Your task to perform on an android device: clear all cookies in the chrome app Image 0: 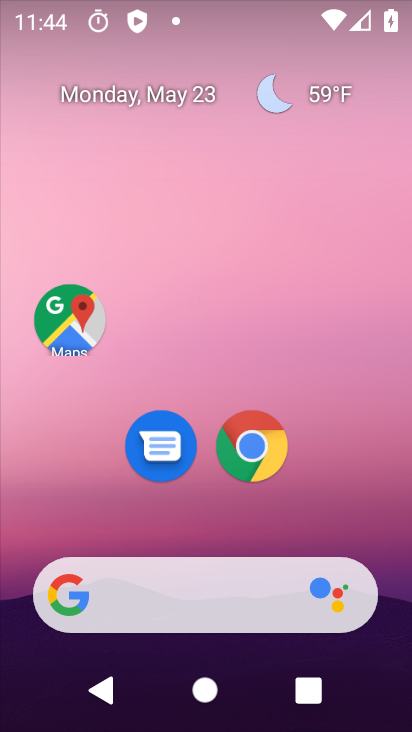
Step 0: click (248, 447)
Your task to perform on an android device: clear all cookies in the chrome app Image 1: 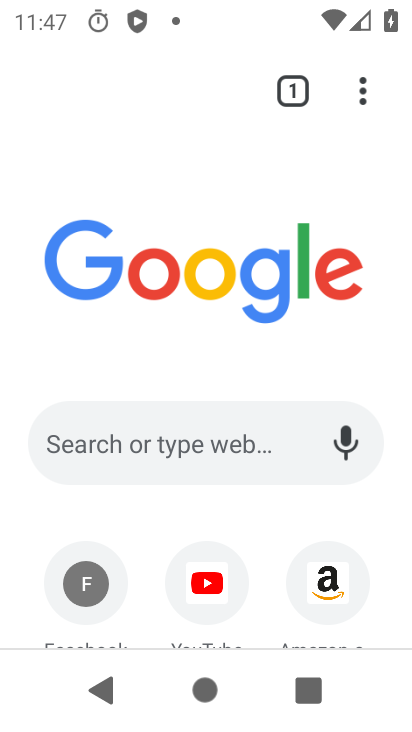
Step 1: click (363, 79)
Your task to perform on an android device: clear all cookies in the chrome app Image 2: 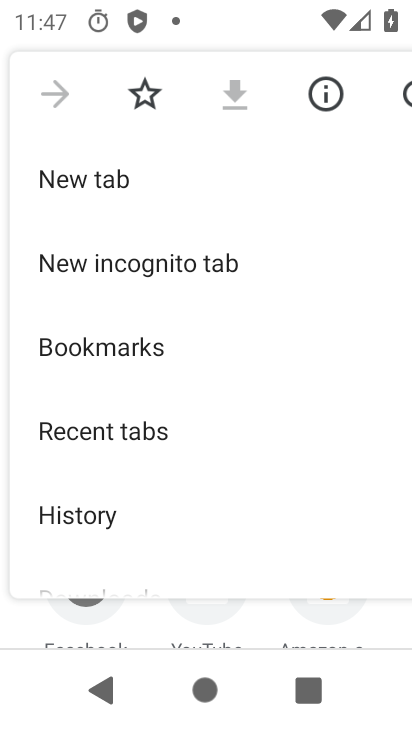
Step 2: drag from (135, 510) to (146, 299)
Your task to perform on an android device: clear all cookies in the chrome app Image 3: 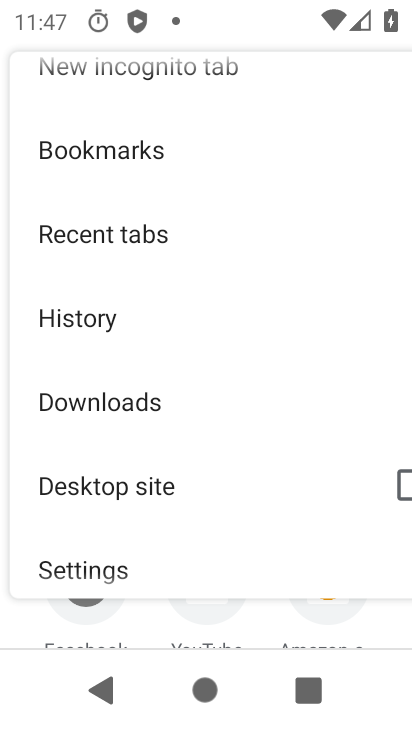
Step 3: click (98, 567)
Your task to perform on an android device: clear all cookies in the chrome app Image 4: 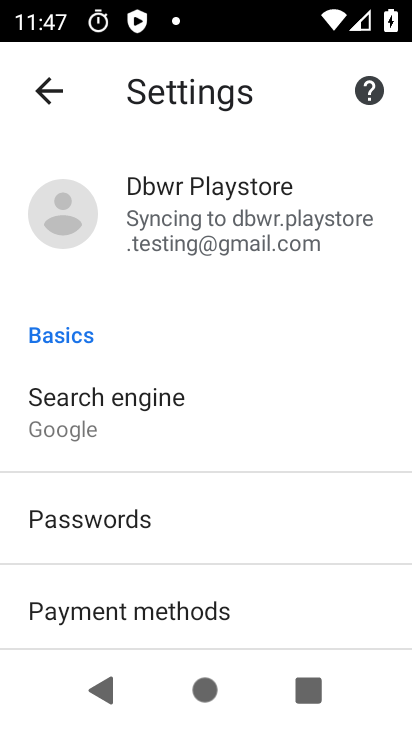
Step 4: drag from (118, 543) to (149, 268)
Your task to perform on an android device: clear all cookies in the chrome app Image 5: 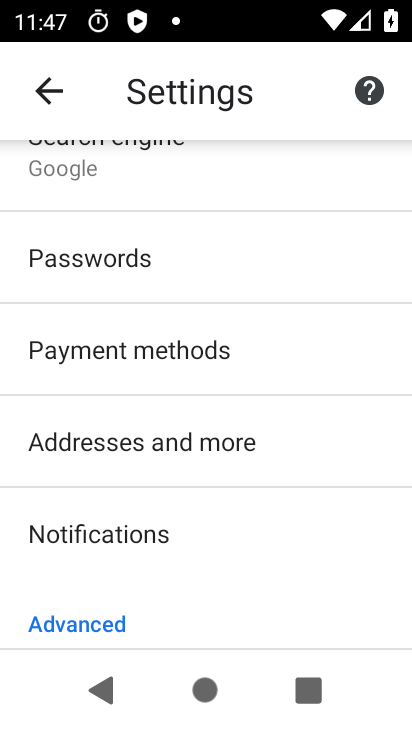
Step 5: drag from (172, 560) to (214, 216)
Your task to perform on an android device: clear all cookies in the chrome app Image 6: 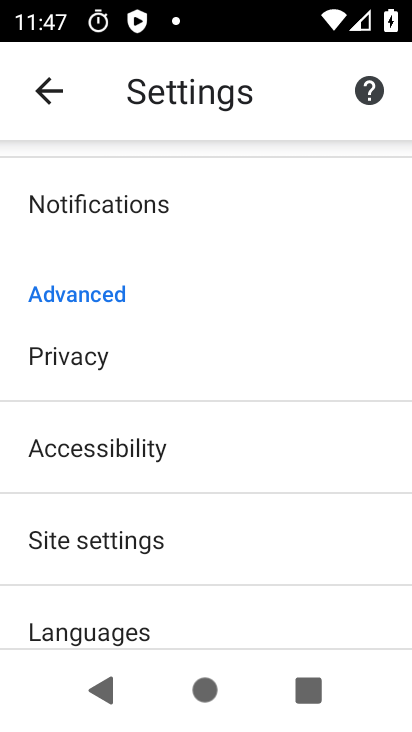
Step 6: click (85, 352)
Your task to perform on an android device: clear all cookies in the chrome app Image 7: 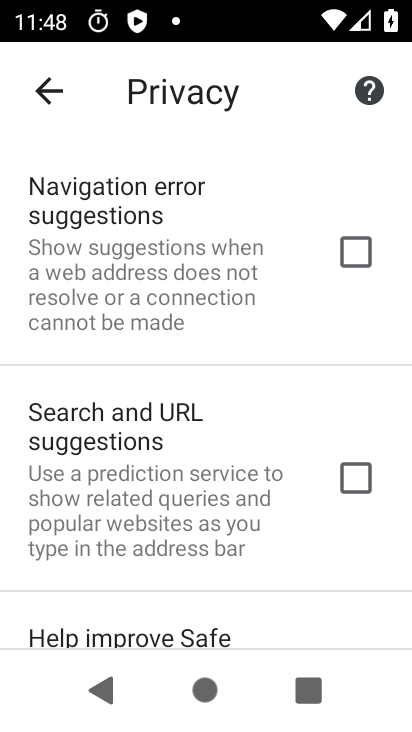
Step 7: drag from (112, 508) to (142, 201)
Your task to perform on an android device: clear all cookies in the chrome app Image 8: 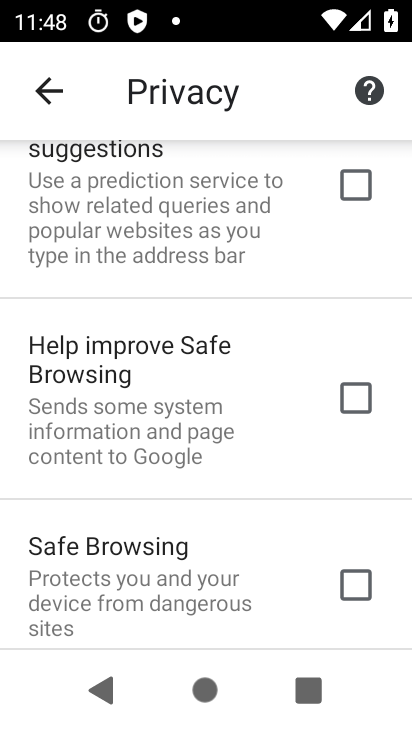
Step 8: drag from (122, 534) to (159, 216)
Your task to perform on an android device: clear all cookies in the chrome app Image 9: 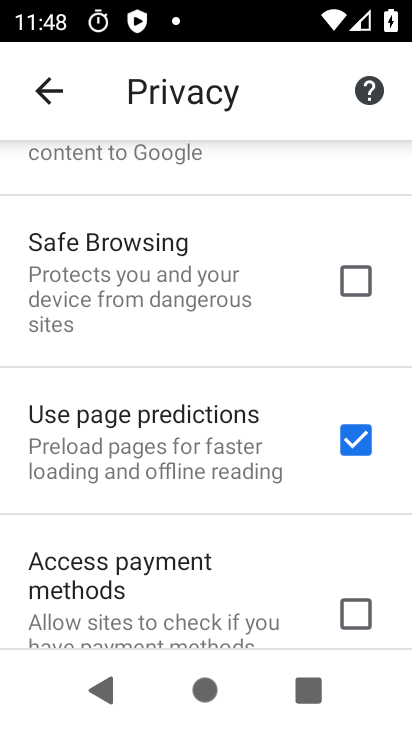
Step 9: drag from (133, 601) to (149, 220)
Your task to perform on an android device: clear all cookies in the chrome app Image 10: 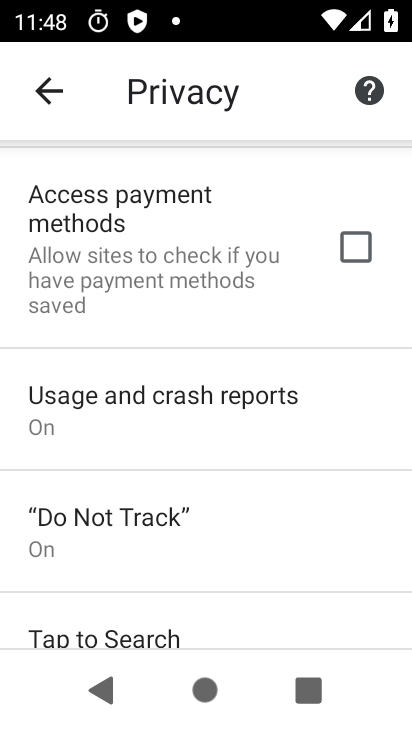
Step 10: drag from (133, 604) to (182, 168)
Your task to perform on an android device: clear all cookies in the chrome app Image 11: 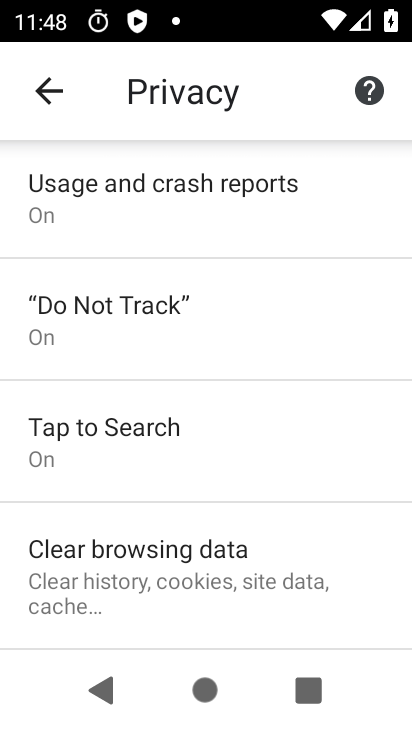
Step 11: click (108, 560)
Your task to perform on an android device: clear all cookies in the chrome app Image 12: 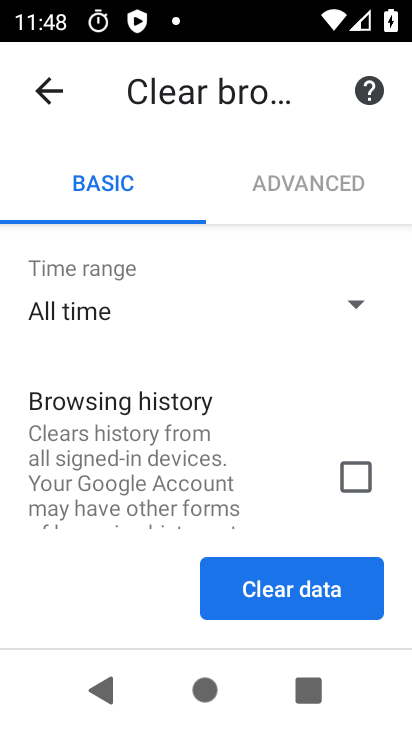
Step 12: click (364, 475)
Your task to perform on an android device: clear all cookies in the chrome app Image 13: 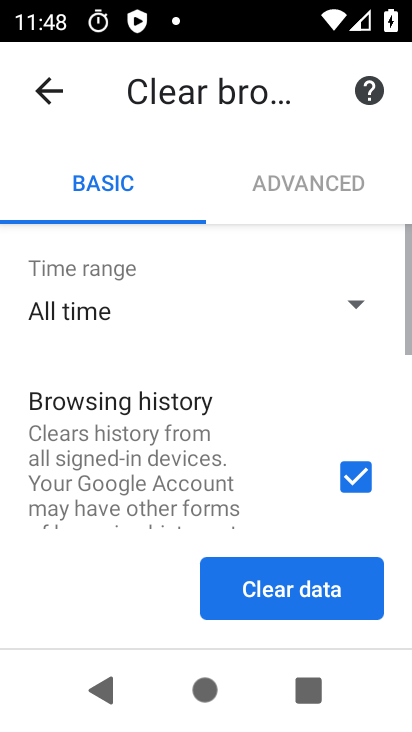
Step 13: drag from (196, 500) to (228, 152)
Your task to perform on an android device: clear all cookies in the chrome app Image 14: 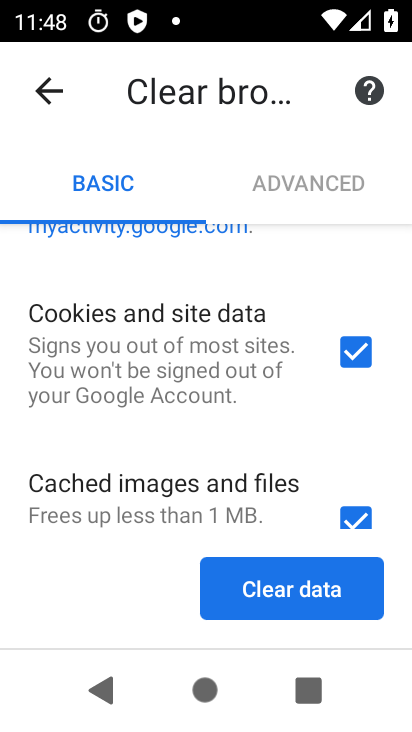
Step 14: click (291, 597)
Your task to perform on an android device: clear all cookies in the chrome app Image 15: 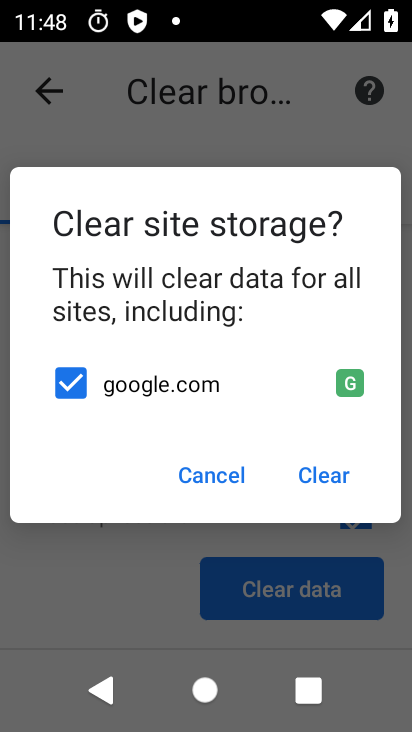
Step 15: click (335, 467)
Your task to perform on an android device: clear all cookies in the chrome app Image 16: 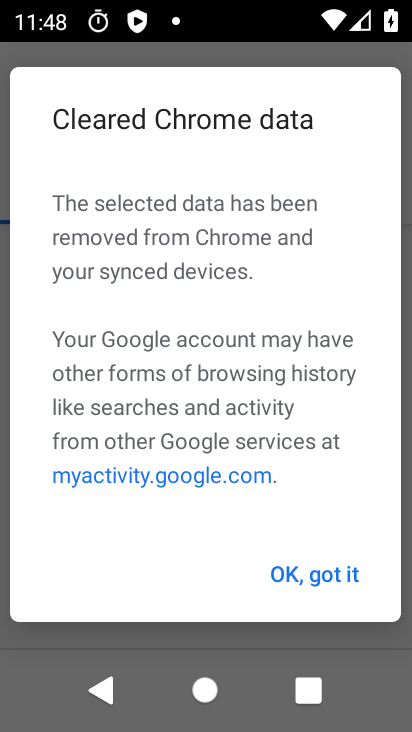
Step 16: click (334, 579)
Your task to perform on an android device: clear all cookies in the chrome app Image 17: 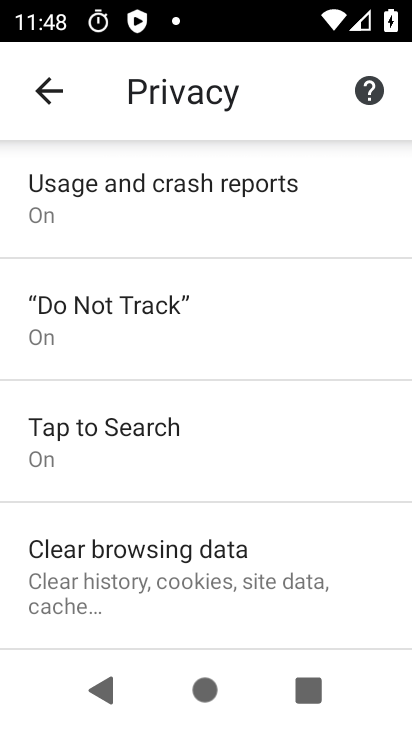
Step 17: task complete